Your task to perform on an android device: See recent photos Image 0: 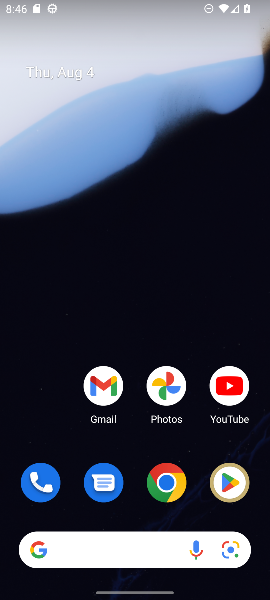
Step 0: press home button
Your task to perform on an android device: See recent photos Image 1: 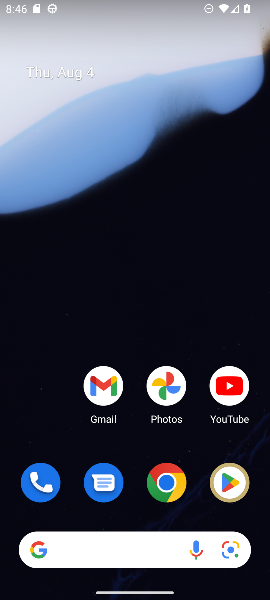
Step 1: press home button
Your task to perform on an android device: See recent photos Image 2: 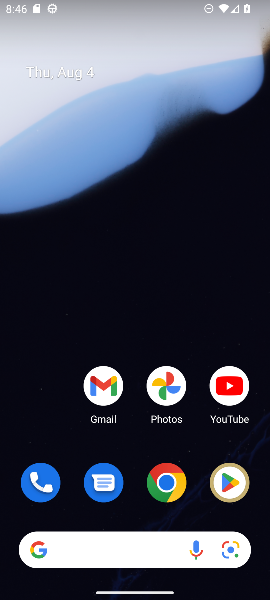
Step 2: click (173, 377)
Your task to perform on an android device: See recent photos Image 3: 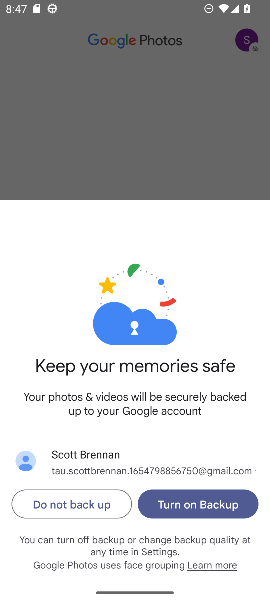
Step 3: click (193, 505)
Your task to perform on an android device: See recent photos Image 4: 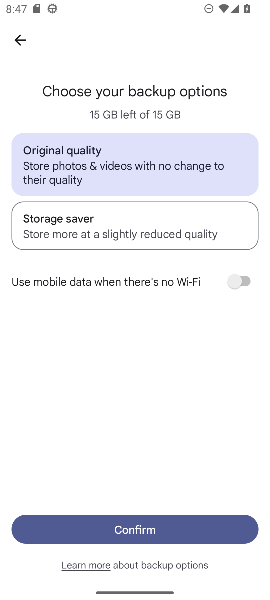
Step 4: click (136, 535)
Your task to perform on an android device: See recent photos Image 5: 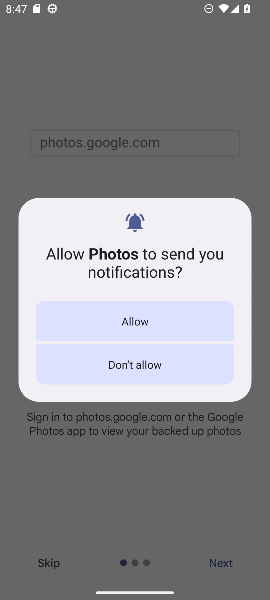
Step 5: click (133, 318)
Your task to perform on an android device: See recent photos Image 6: 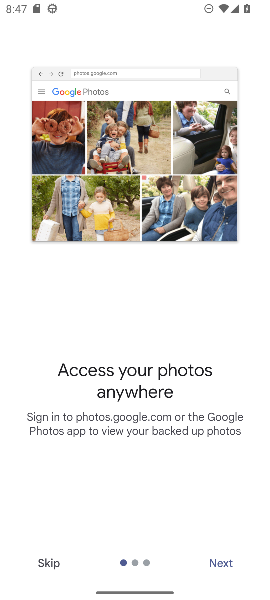
Step 6: click (35, 560)
Your task to perform on an android device: See recent photos Image 7: 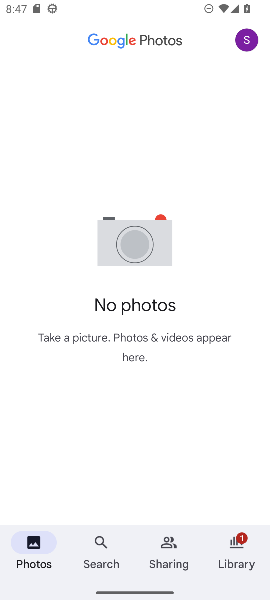
Step 7: task complete